Your task to perform on an android device: Go to Yahoo.com Image 0: 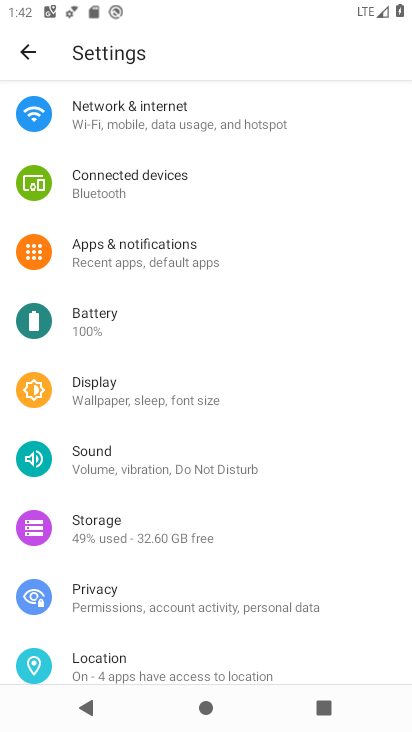
Step 0: press home button
Your task to perform on an android device: Go to Yahoo.com Image 1: 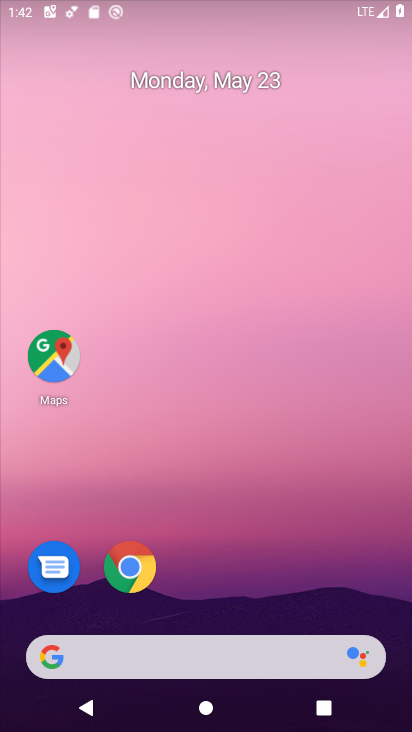
Step 1: drag from (220, 558) to (308, 200)
Your task to perform on an android device: Go to Yahoo.com Image 2: 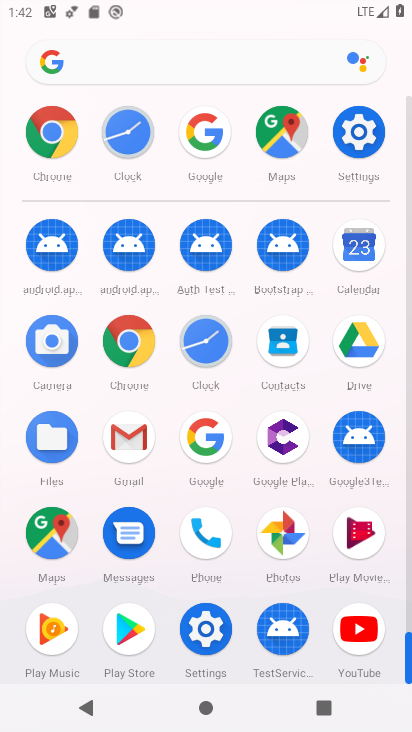
Step 2: click (122, 351)
Your task to perform on an android device: Go to Yahoo.com Image 3: 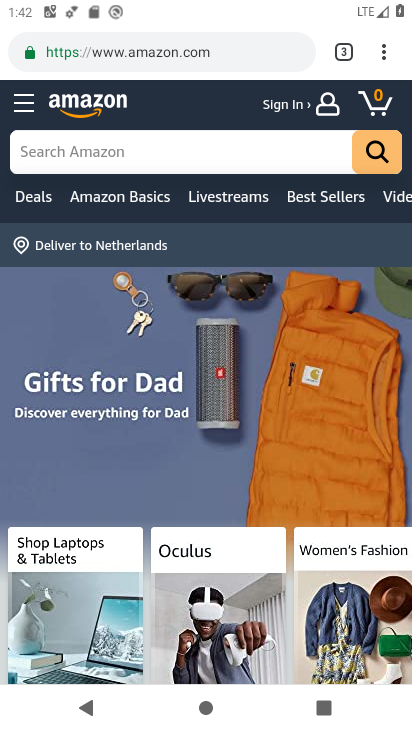
Step 3: click (352, 47)
Your task to perform on an android device: Go to Yahoo.com Image 4: 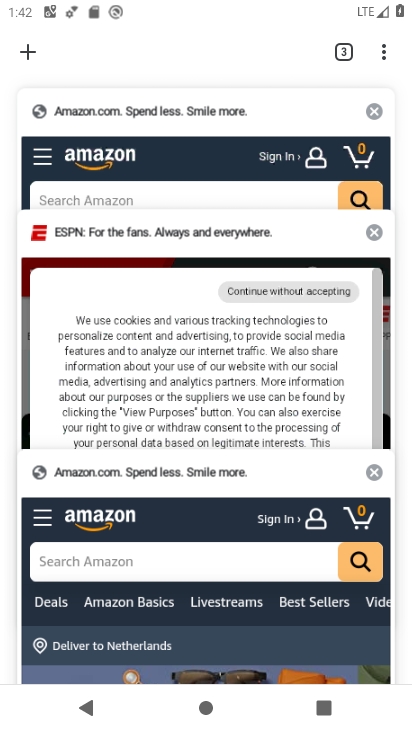
Step 4: click (24, 50)
Your task to perform on an android device: Go to Yahoo.com Image 5: 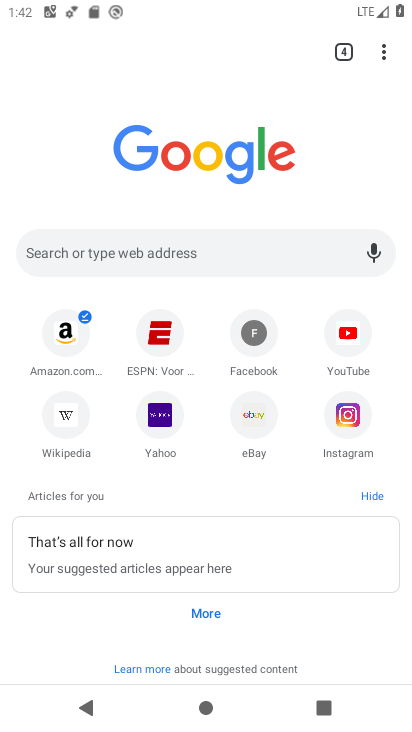
Step 5: click (172, 435)
Your task to perform on an android device: Go to Yahoo.com Image 6: 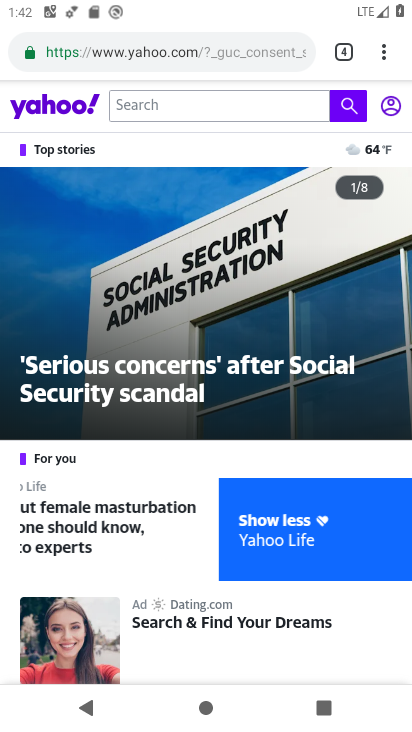
Step 6: task complete